Your task to perform on an android device: check google app version Image 0: 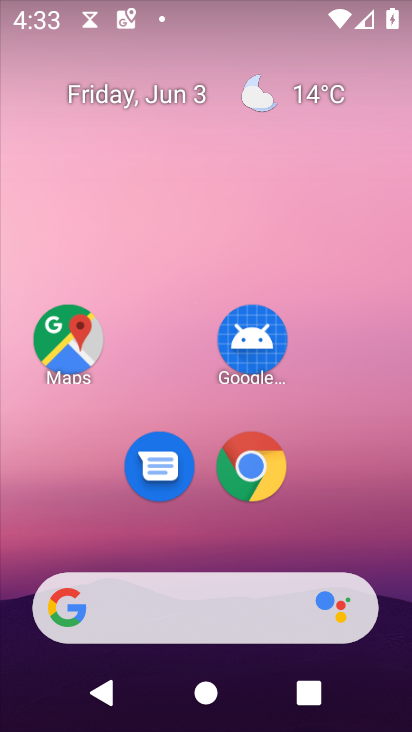
Step 0: click (263, 599)
Your task to perform on an android device: check google app version Image 1: 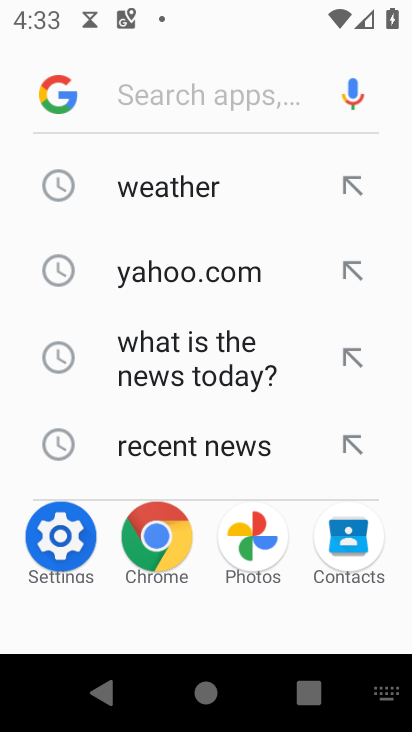
Step 1: click (59, 84)
Your task to perform on an android device: check google app version Image 2: 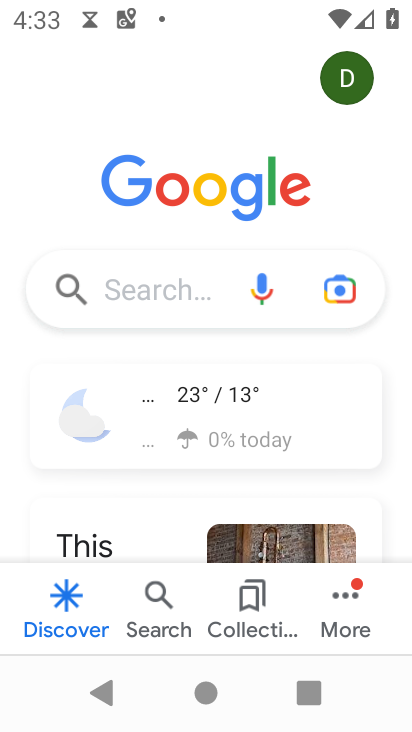
Step 2: click (352, 56)
Your task to perform on an android device: check google app version Image 3: 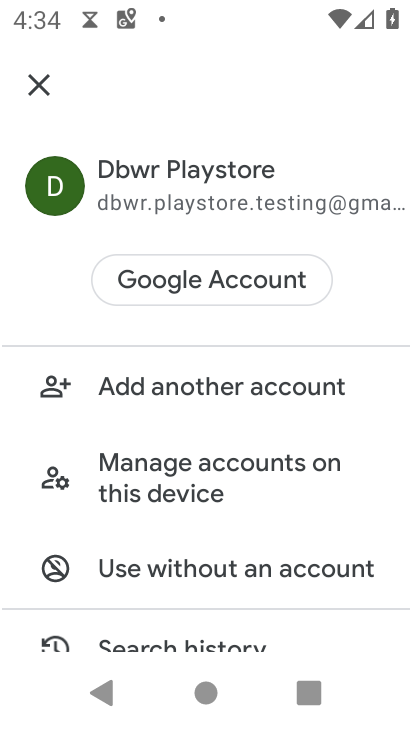
Step 3: drag from (294, 475) to (351, 128)
Your task to perform on an android device: check google app version Image 4: 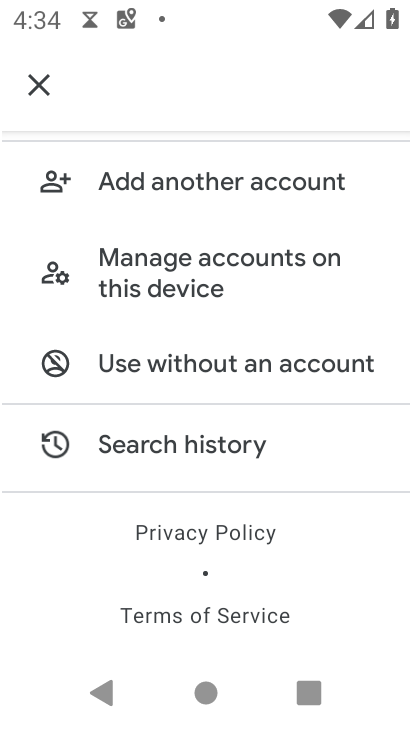
Step 4: drag from (259, 250) to (280, 610)
Your task to perform on an android device: check google app version Image 5: 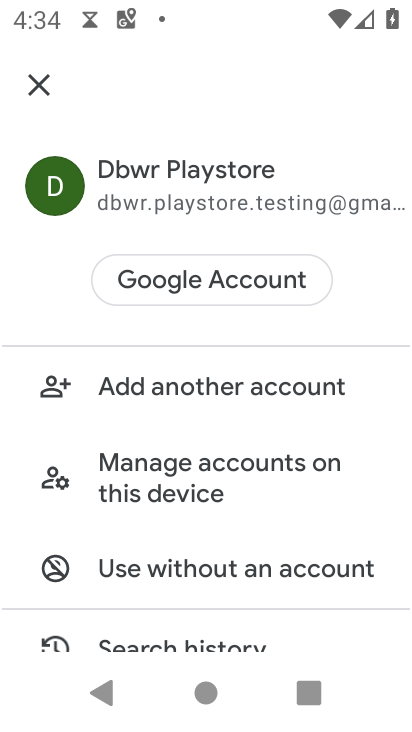
Step 5: drag from (220, 520) to (254, 167)
Your task to perform on an android device: check google app version Image 6: 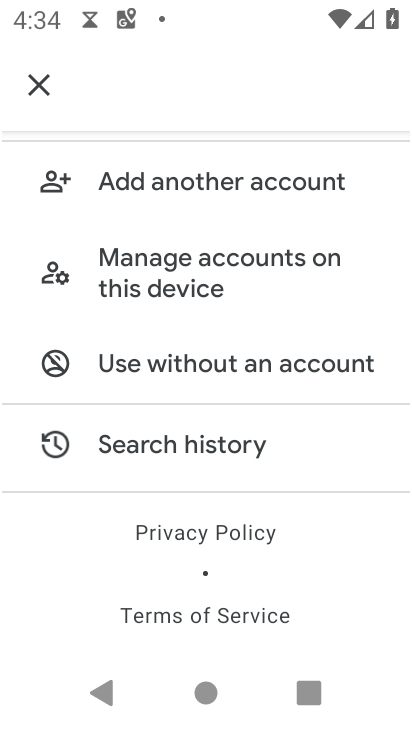
Step 6: click (37, 82)
Your task to perform on an android device: check google app version Image 7: 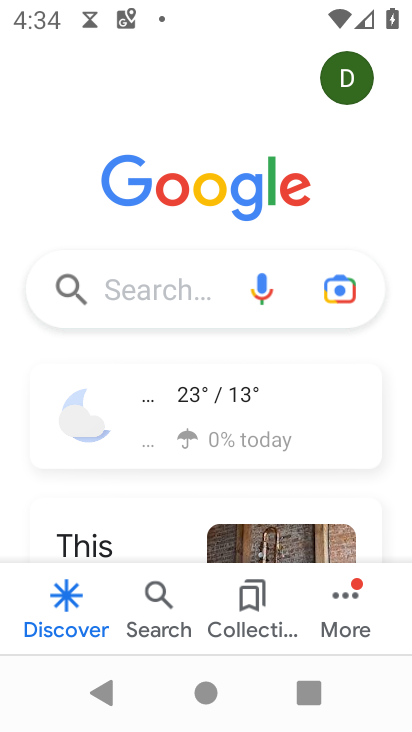
Step 7: click (345, 73)
Your task to perform on an android device: check google app version Image 8: 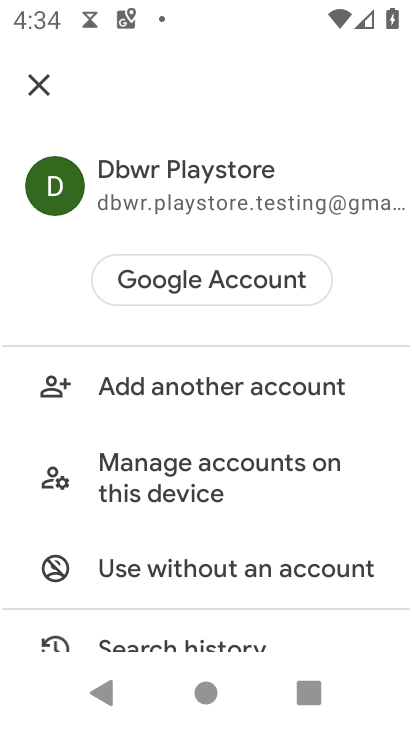
Step 8: drag from (292, 443) to (273, 41)
Your task to perform on an android device: check google app version Image 9: 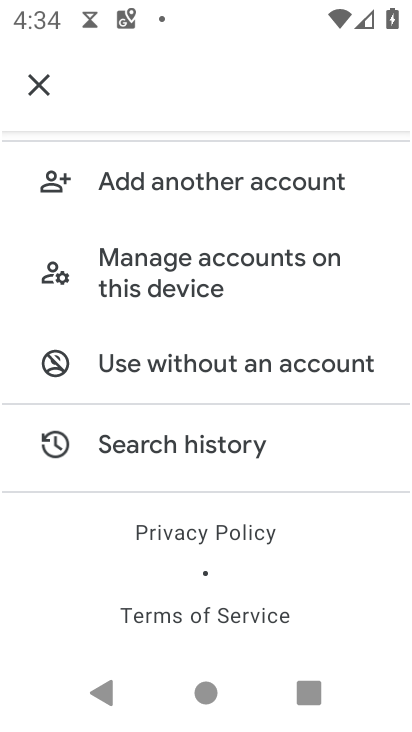
Step 9: drag from (197, 143) to (191, 481)
Your task to perform on an android device: check google app version Image 10: 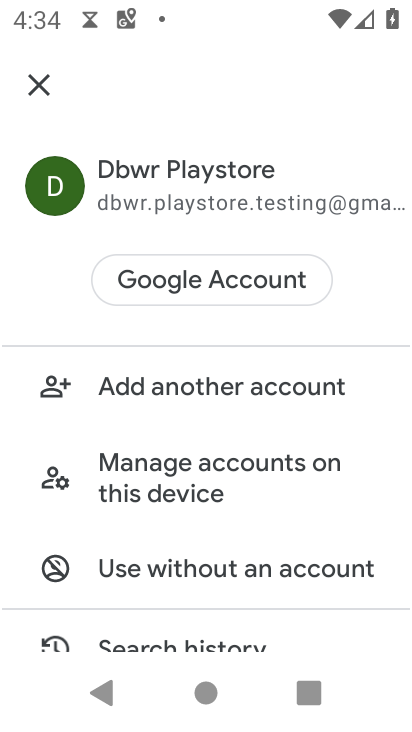
Step 10: drag from (203, 492) to (237, 270)
Your task to perform on an android device: check google app version Image 11: 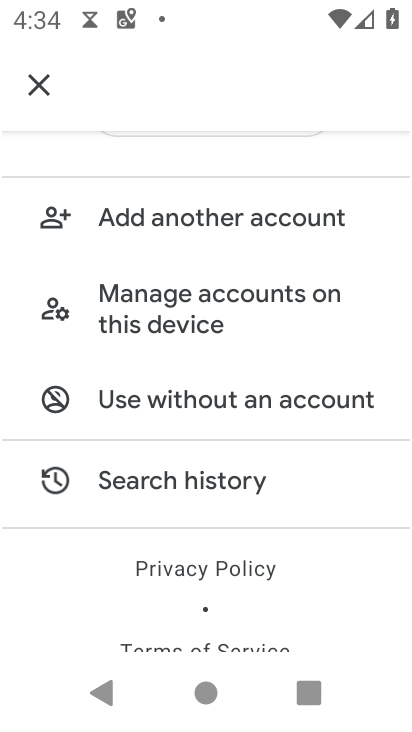
Step 11: drag from (273, 195) to (232, 510)
Your task to perform on an android device: check google app version Image 12: 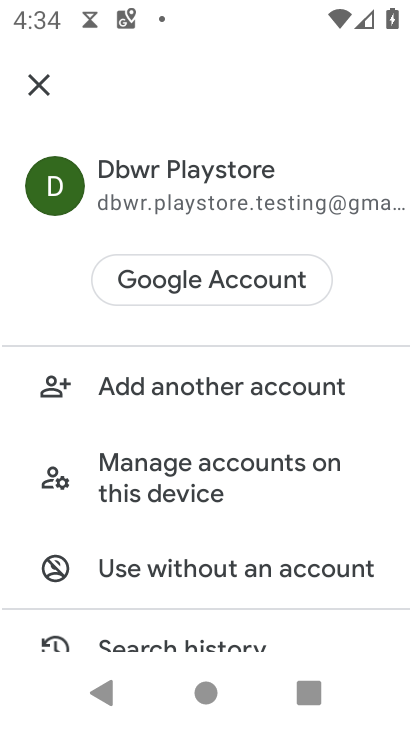
Step 12: drag from (209, 490) to (230, 157)
Your task to perform on an android device: check google app version Image 13: 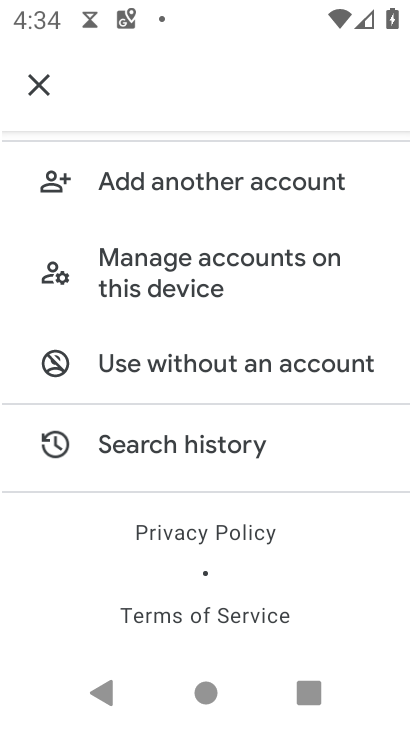
Step 13: click (34, 86)
Your task to perform on an android device: check google app version Image 14: 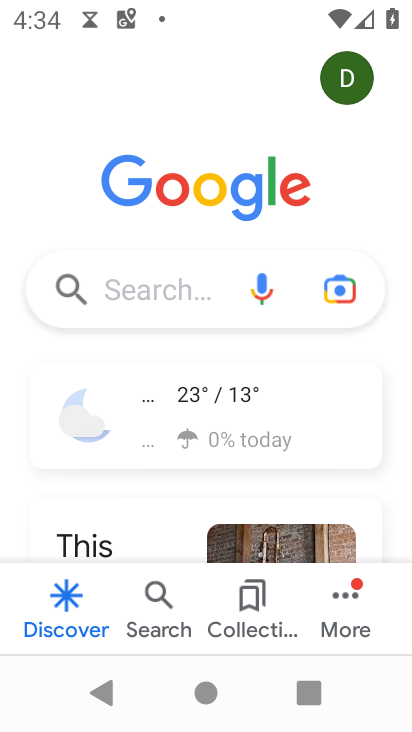
Step 14: click (349, 591)
Your task to perform on an android device: check google app version Image 15: 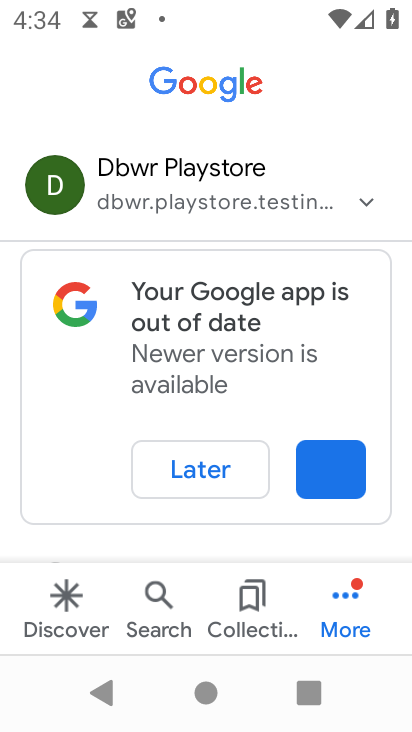
Step 15: click (327, 186)
Your task to perform on an android device: check google app version Image 16: 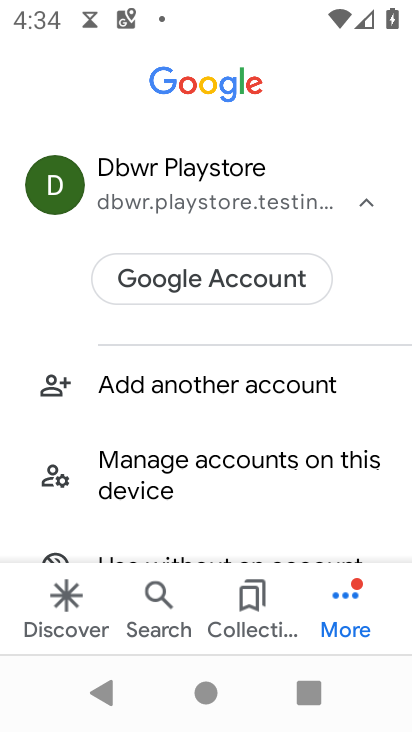
Step 16: drag from (275, 493) to (325, 93)
Your task to perform on an android device: check google app version Image 17: 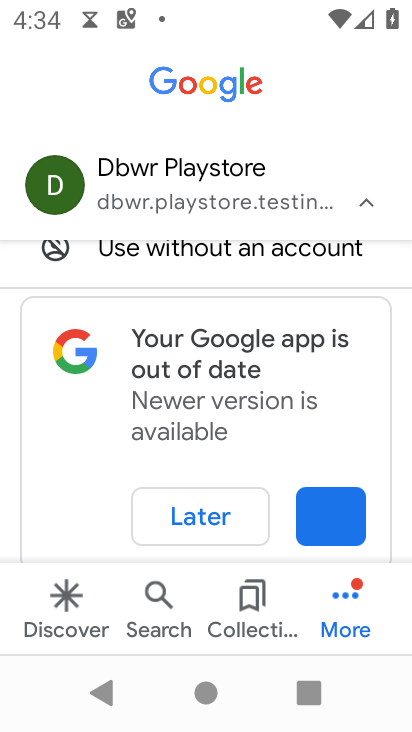
Step 17: drag from (262, 495) to (287, 251)
Your task to perform on an android device: check google app version Image 18: 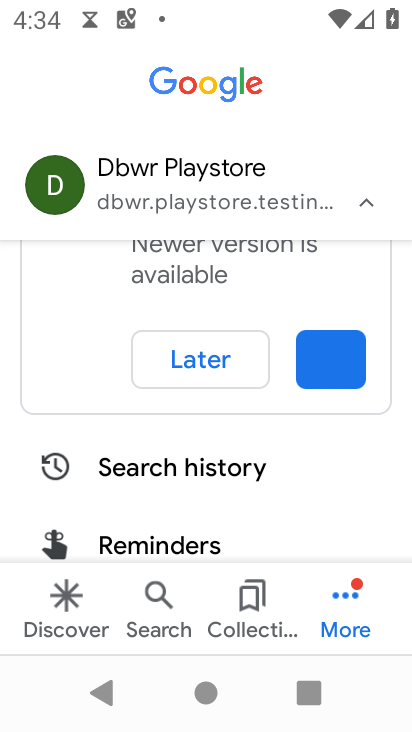
Step 18: drag from (289, 249) to (301, 459)
Your task to perform on an android device: check google app version Image 19: 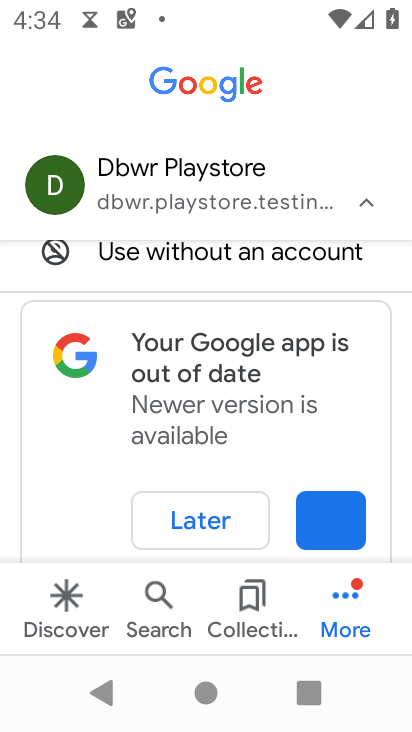
Step 19: drag from (300, 460) to (334, 200)
Your task to perform on an android device: check google app version Image 20: 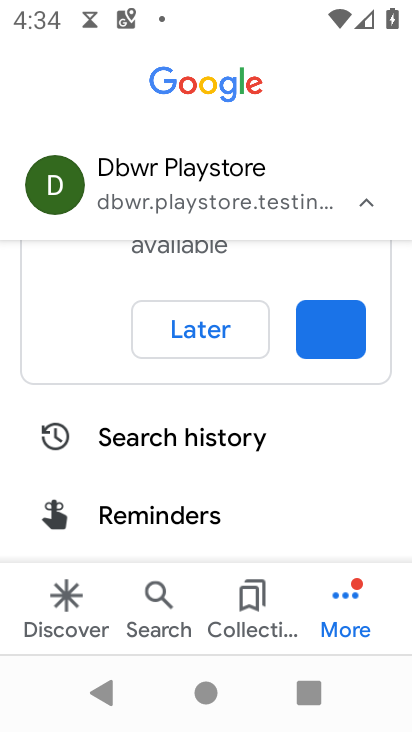
Step 20: drag from (263, 555) to (301, 250)
Your task to perform on an android device: check google app version Image 21: 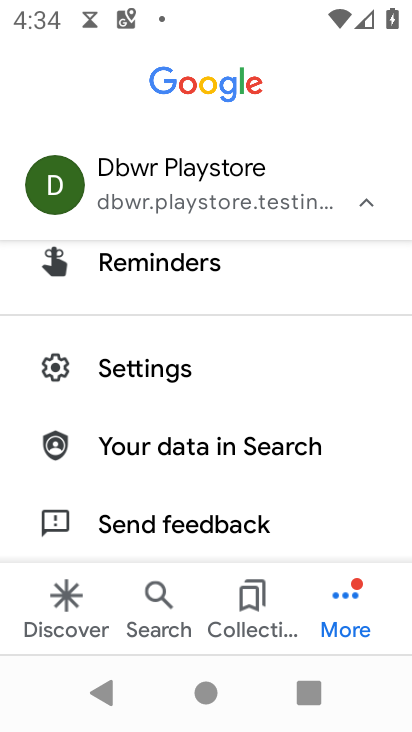
Step 21: click (234, 362)
Your task to perform on an android device: check google app version Image 22: 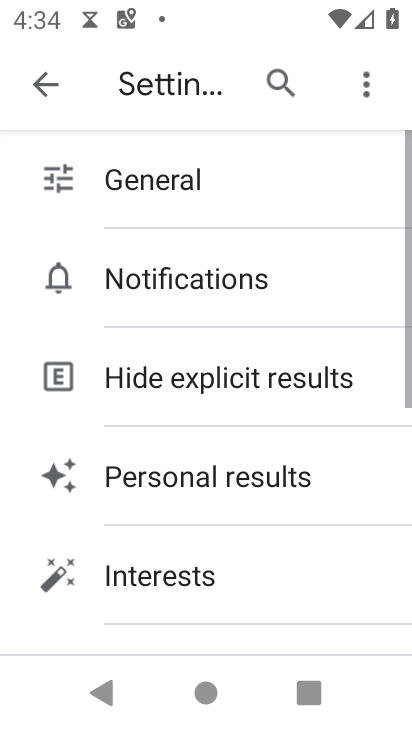
Step 22: drag from (250, 511) to (282, 110)
Your task to perform on an android device: check google app version Image 23: 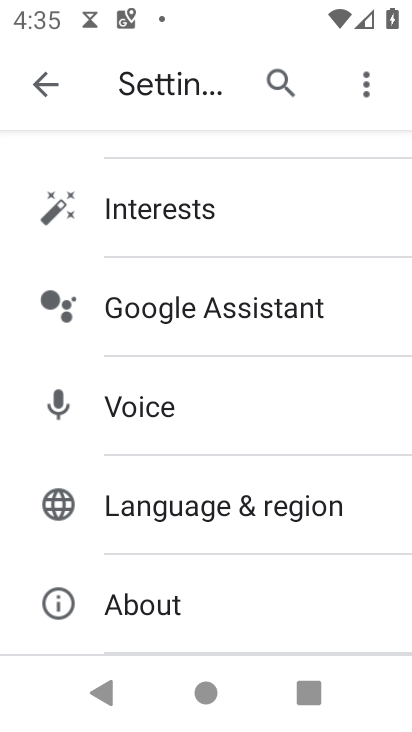
Step 23: drag from (194, 532) to (238, 186)
Your task to perform on an android device: check google app version Image 24: 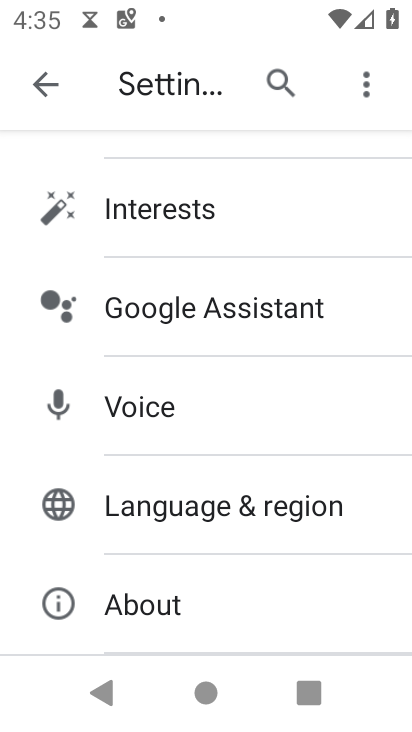
Step 24: click (145, 598)
Your task to perform on an android device: check google app version Image 25: 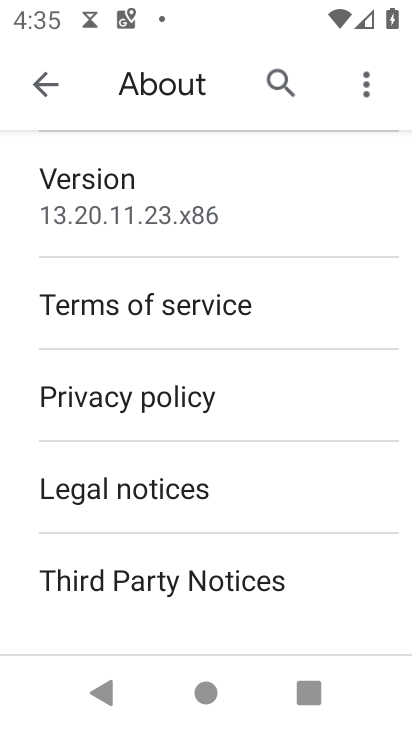
Step 25: click (236, 182)
Your task to perform on an android device: check google app version Image 26: 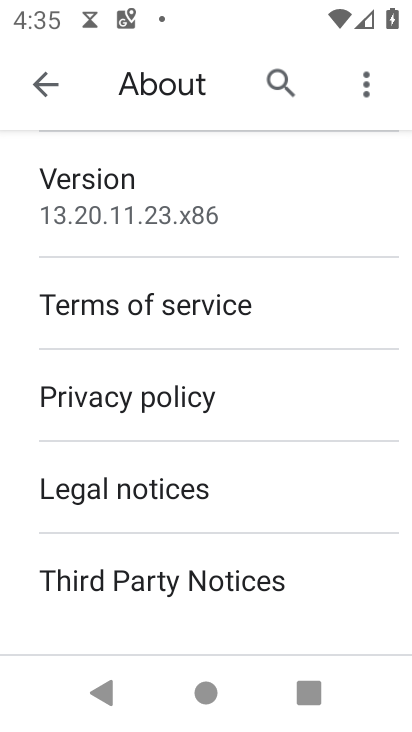
Step 26: task complete